Your task to perform on an android device: turn on airplane mode Image 0: 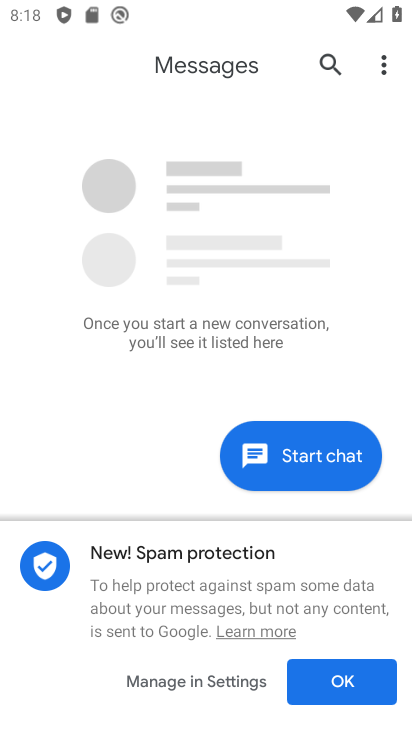
Step 0: drag from (203, 8) to (253, 432)
Your task to perform on an android device: turn on airplane mode Image 1: 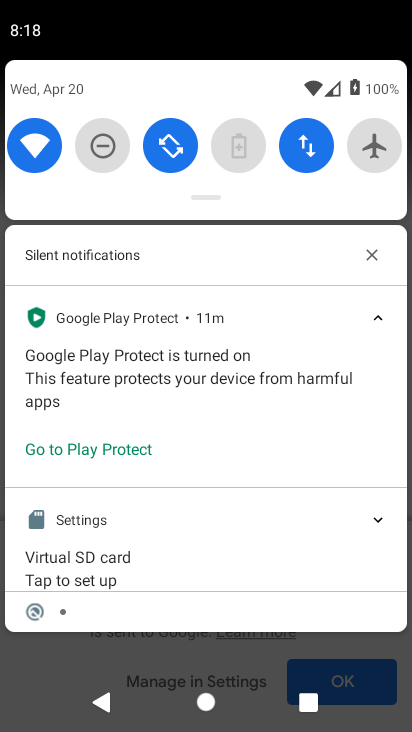
Step 1: drag from (176, 97) to (195, 664)
Your task to perform on an android device: turn on airplane mode Image 2: 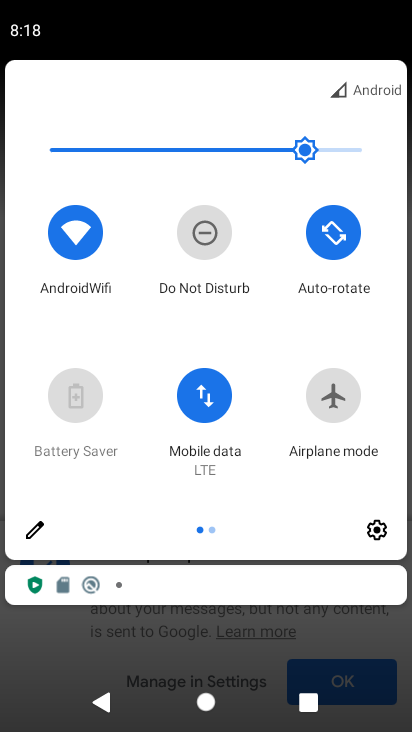
Step 2: click (347, 399)
Your task to perform on an android device: turn on airplane mode Image 3: 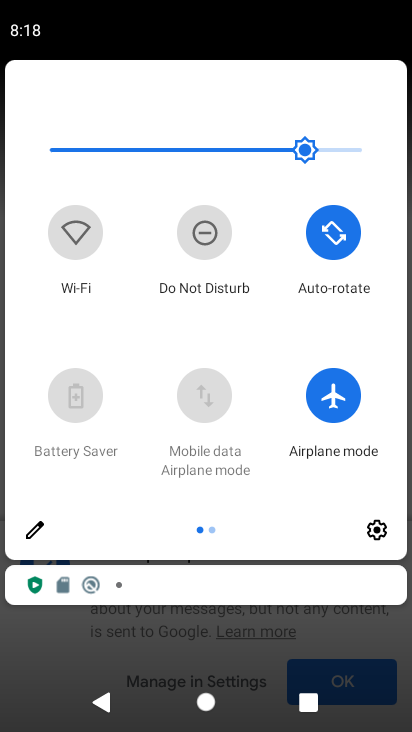
Step 3: task complete